Your task to perform on an android device: delete location history Image 0: 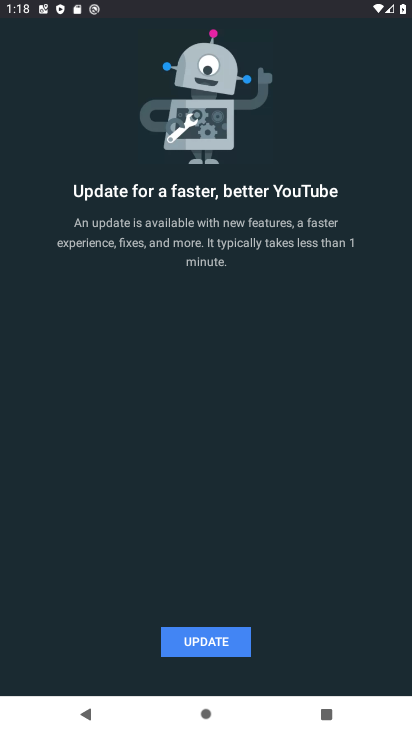
Step 0: press home button
Your task to perform on an android device: delete location history Image 1: 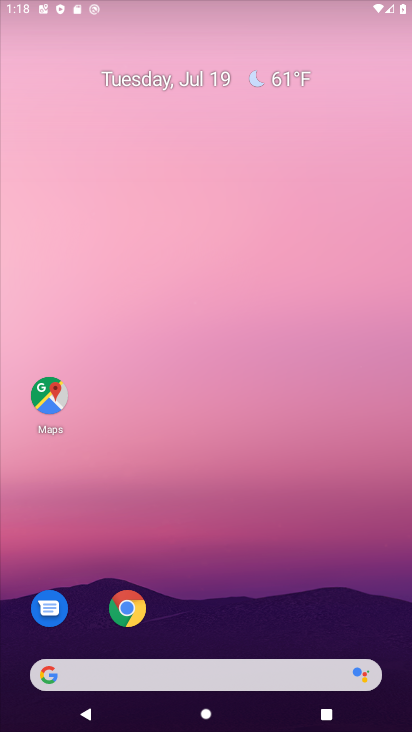
Step 1: drag from (218, 627) to (243, 137)
Your task to perform on an android device: delete location history Image 2: 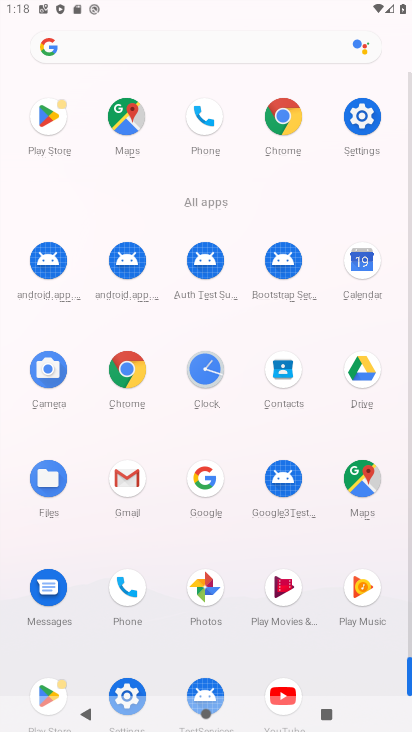
Step 2: click (365, 117)
Your task to perform on an android device: delete location history Image 3: 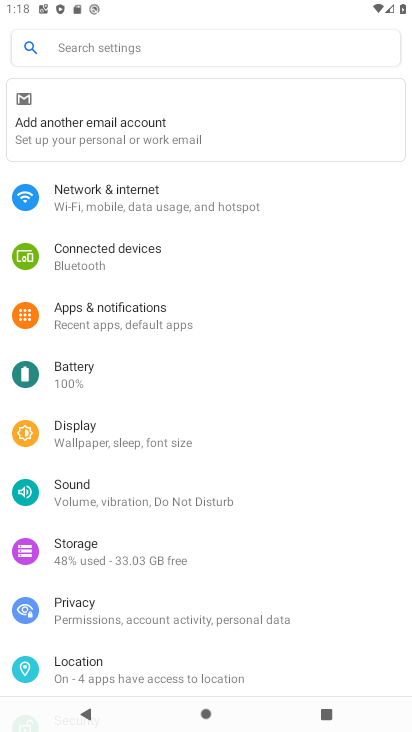
Step 3: task complete